Your task to perform on an android device: Open the Play Movies app and select the watchlist tab. Image 0: 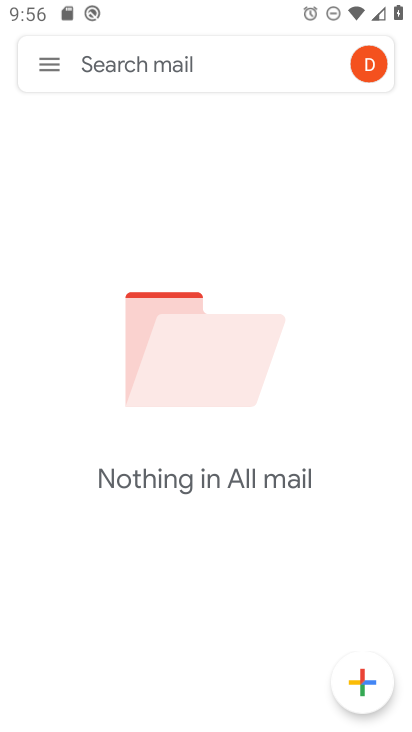
Step 0: press home button
Your task to perform on an android device: Open the Play Movies app and select the watchlist tab. Image 1: 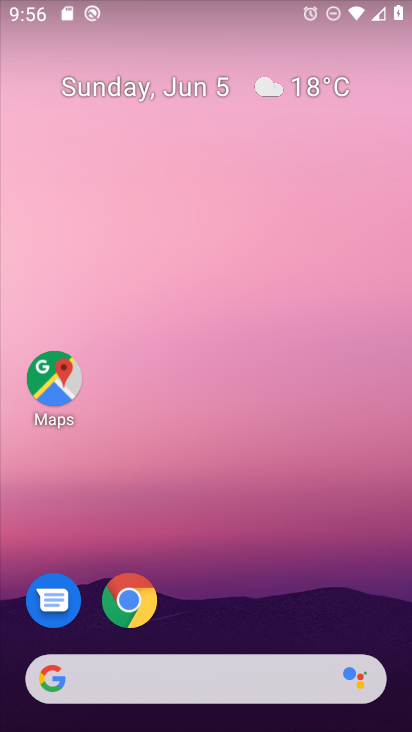
Step 1: drag from (213, 524) to (213, 20)
Your task to perform on an android device: Open the Play Movies app and select the watchlist tab. Image 2: 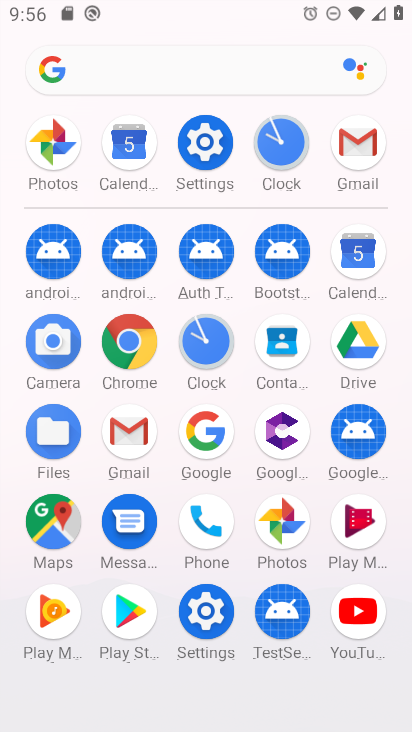
Step 2: click (367, 521)
Your task to perform on an android device: Open the Play Movies app and select the watchlist tab. Image 3: 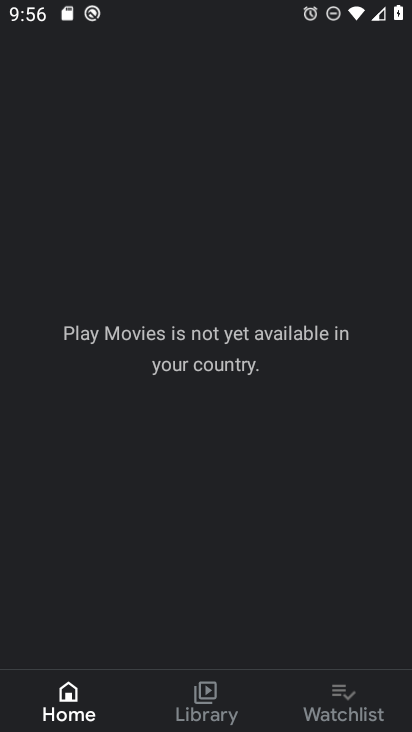
Step 3: click (358, 687)
Your task to perform on an android device: Open the Play Movies app and select the watchlist tab. Image 4: 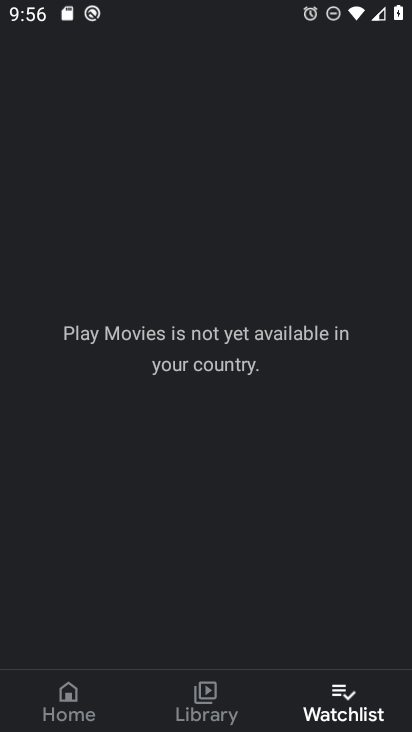
Step 4: task complete